Your task to perform on an android device: turn off improve location accuracy Image 0: 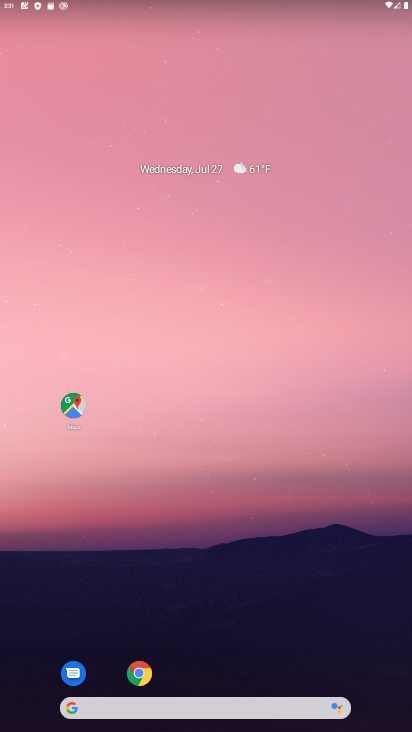
Step 0: drag from (344, 612) to (258, 7)
Your task to perform on an android device: turn off improve location accuracy Image 1: 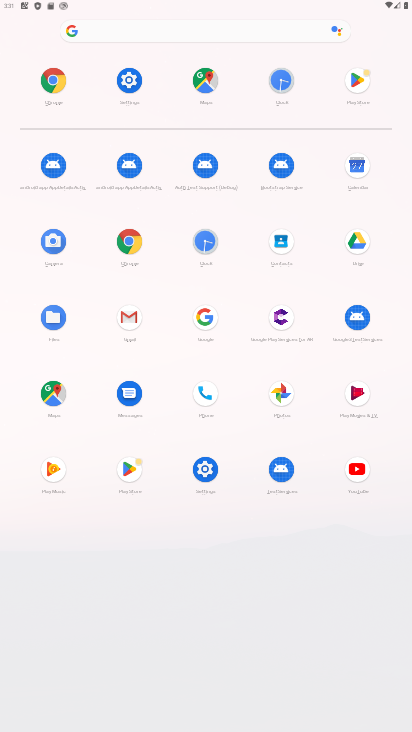
Step 1: click (130, 85)
Your task to perform on an android device: turn off improve location accuracy Image 2: 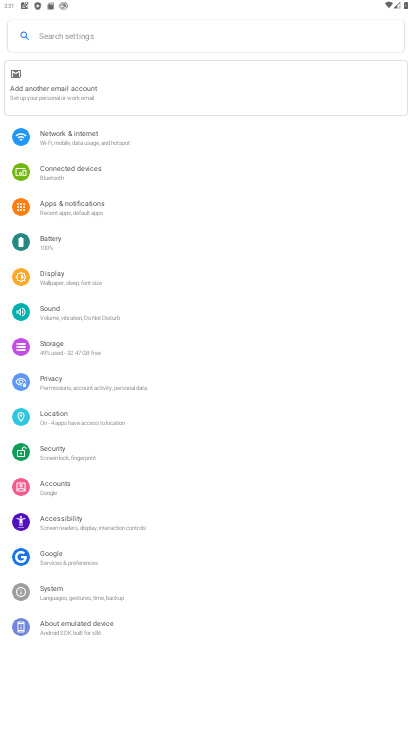
Step 2: click (67, 416)
Your task to perform on an android device: turn off improve location accuracy Image 3: 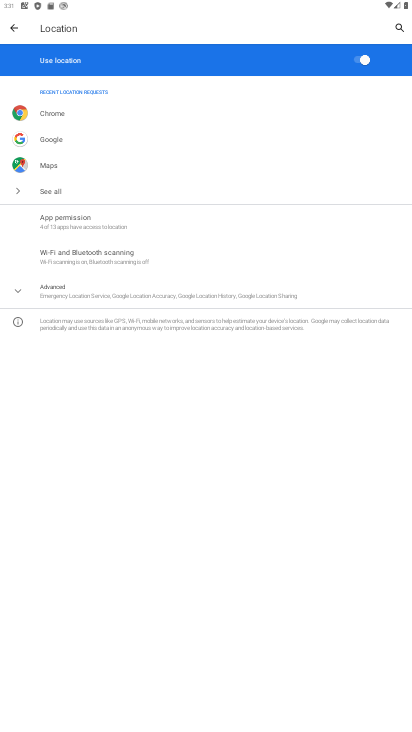
Step 3: click (113, 284)
Your task to perform on an android device: turn off improve location accuracy Image 4: 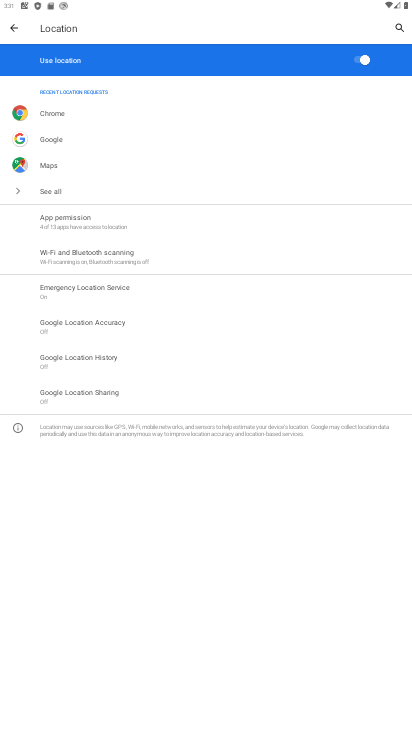
Step 4: click (145, 320)
Your task to perform on an android device: turn off improve location accuracy Image 5: 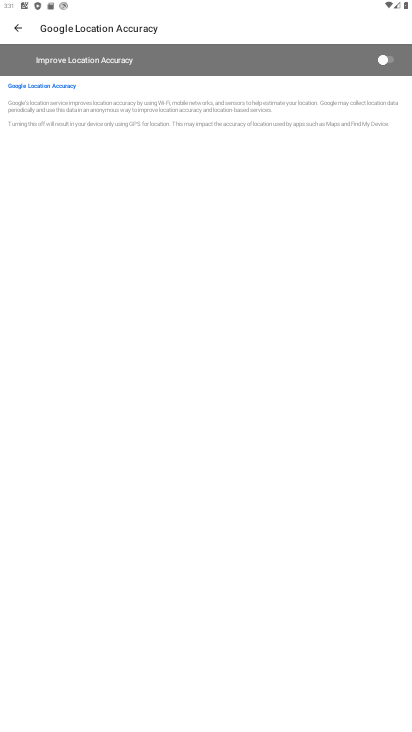
Step 5: task complete